Your task to perform on an android device: Go to wifi settings Image 0: 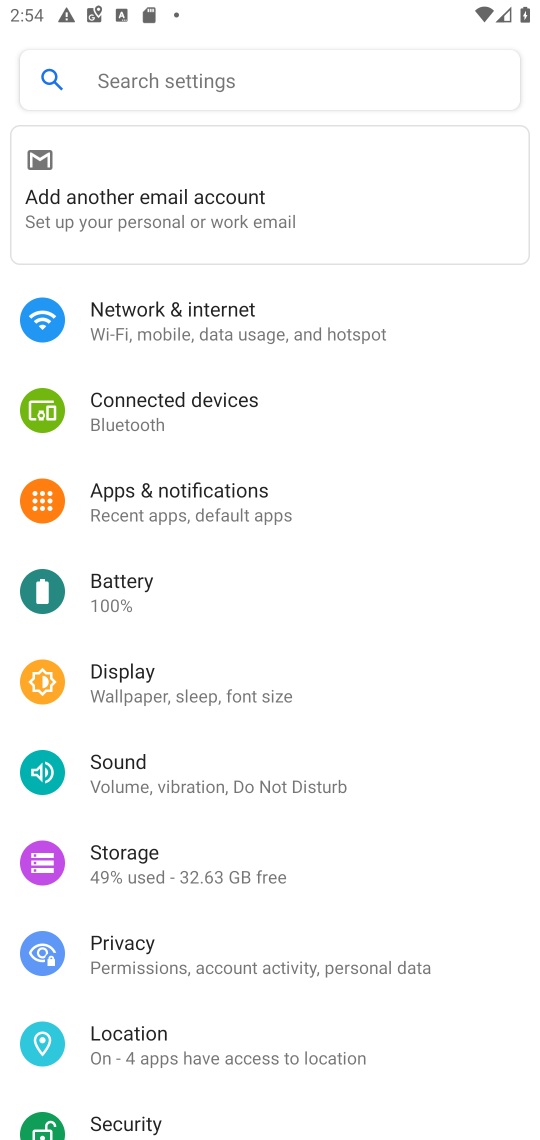
Step 0: click (176, 331)
Your task to perform on an android device: Go to wifi settings Image 1: 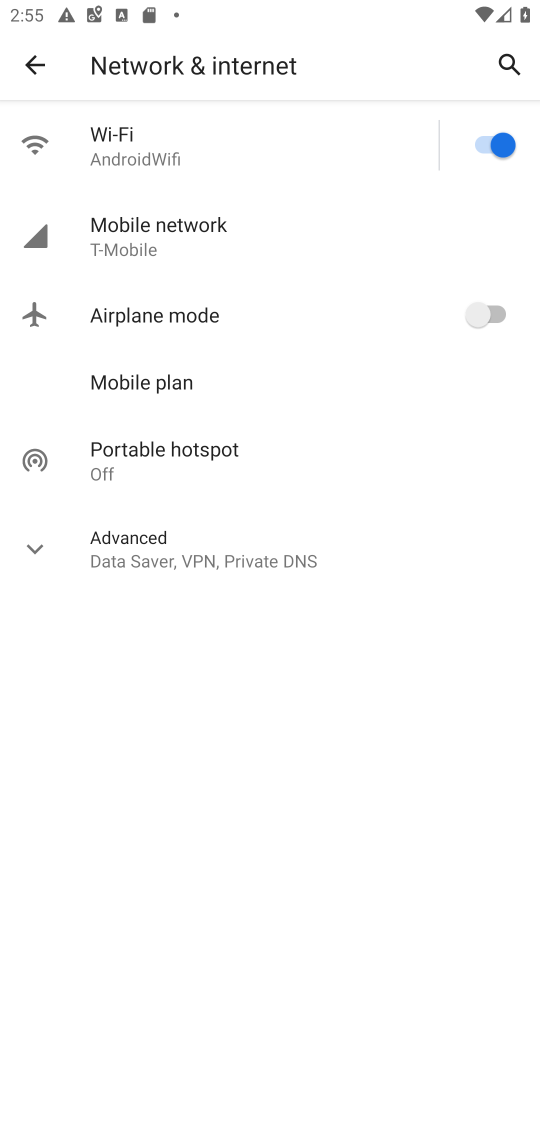
Step 1: click (131, 141)
Your task to perform on an android device: Go to wifi settings Image 2: 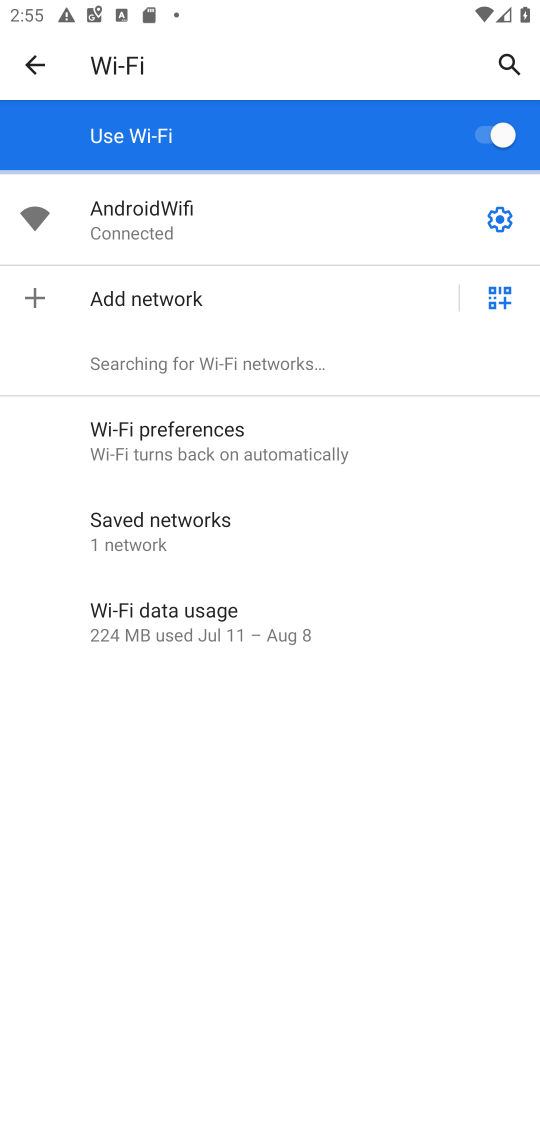
Step 2: task complete